Your task to perform on an android device: choose inbox layout in the gmail app Image 0: 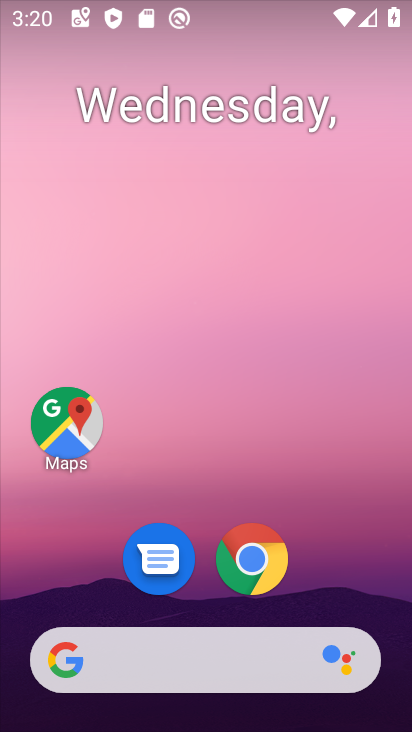
Step 0: drag from (74, 578) to (254, 121)
Your task to perform on an android device: choose inbox layout in the gmail app Image 1: 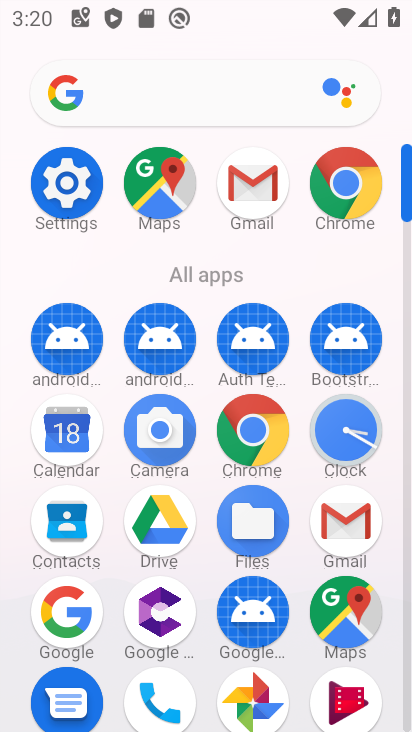
Step 1: click (346, 524)
Your task to perform on an android device: choose inbox layout in the gmail app Image 2: 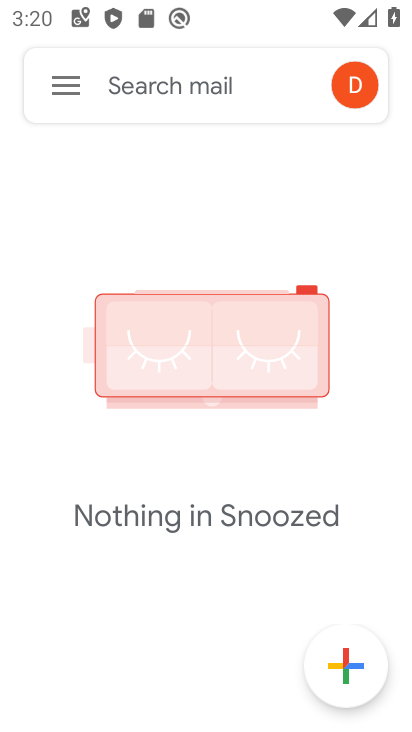
Step 2: click (81, 82)
Your task to perform on an android device: choose inbox layout in the gmail app Image 3: 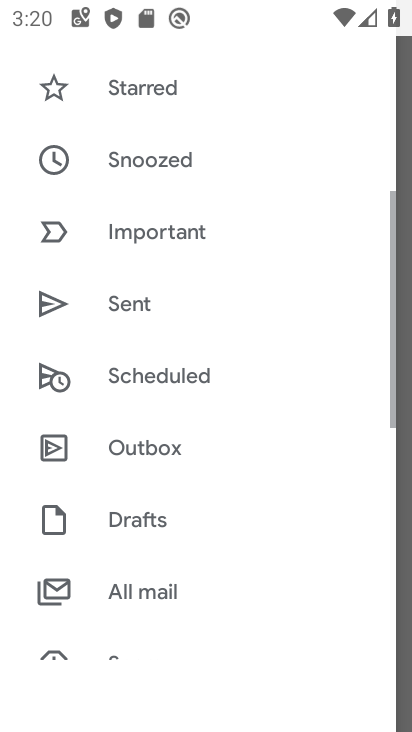
Step 3: drag from (147, 605) to (274, 191)
Your task to perform on an android device: choose inbox layout in the gmail app Image 4: 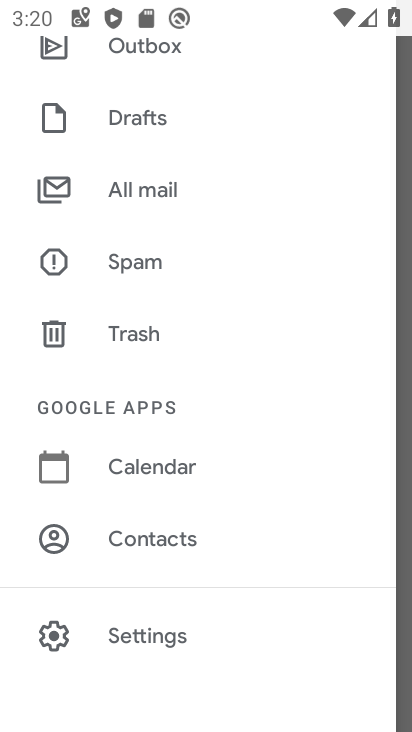
Step 4: click (184, 643)
Your task to perform on an android device: choose inbox layout in the gmail app Image 5: 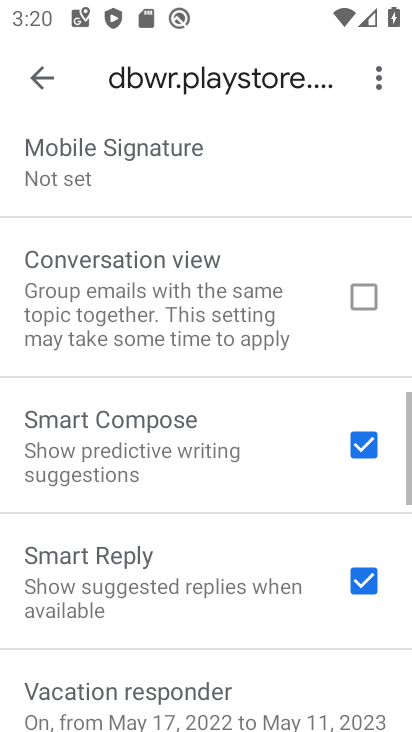
Step 5: drag from (126, 574) to (99, 610)
Your task to perform on an android device: choose inbox layout in the gmail app Image 6: 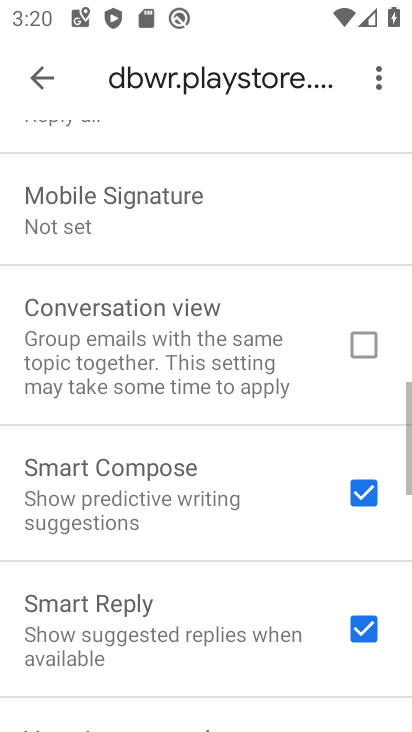
Step 6: drag from (183, 220) to (151, 544)
Your task to perform on an android device: choose inbox layout in the gmail app Image 7: 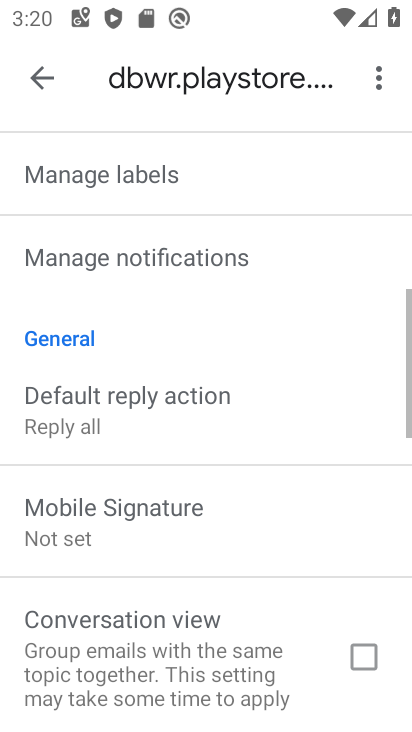
Step 7: drag from (212, 153) to (170, 539)
Your task to perform on an android device: choose inbox layout in the gmail app Image 8: 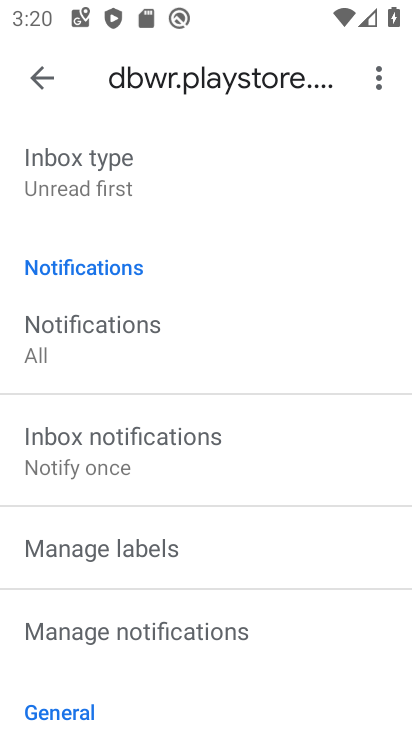
Step 8: click (206, 197)
Your task to perform on an android device: choose inbox layout in the gmail app Image 9: 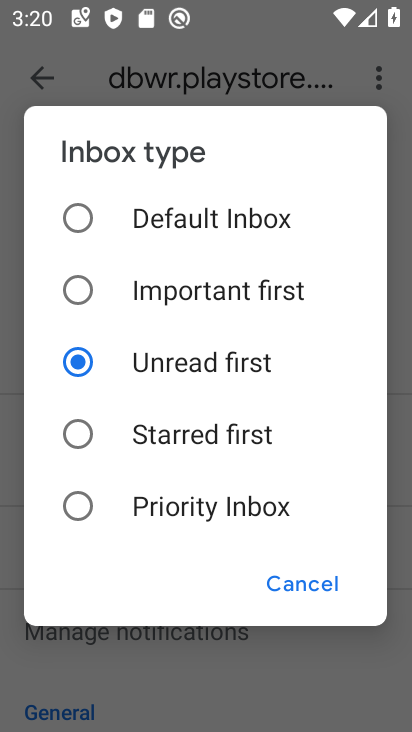
Step 9: click (253, 239)
Your task to perform on an android device: choose inbox layout in the gmail app Image 10: 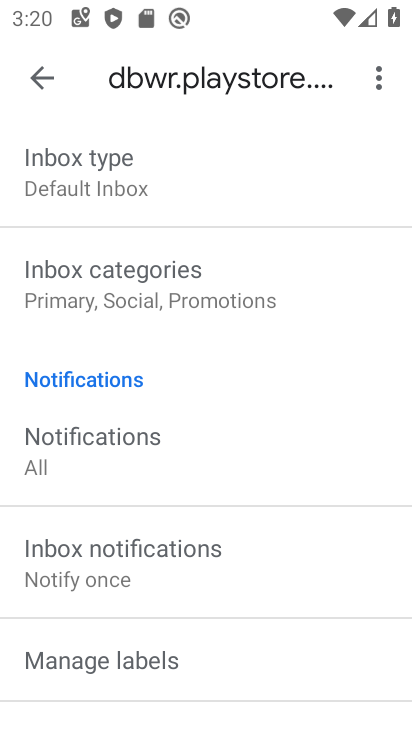
Step 10: task complete